Your task to perform on an android device: Open sound settings Image 0: 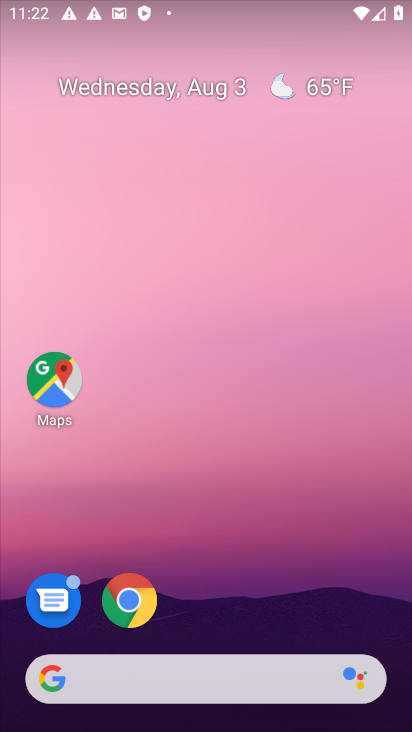
Step 0: drag from (221, 638) to (196, 0)
Your task to perform on an android device: Open sound settings Image 1: 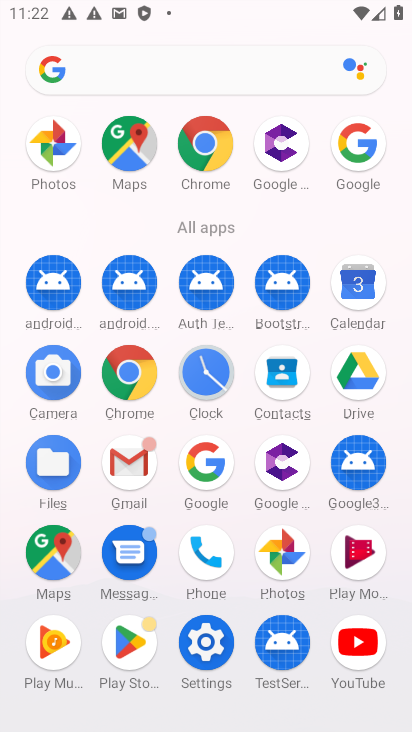
Step 1: click (224, 656)
Your task to perform on an android device: Open sound settings Image 2: 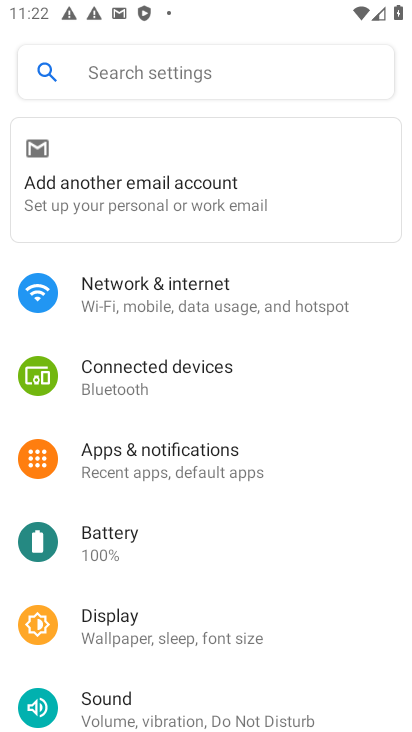
Step 2: click (68, 691)
Your task to perform on an android device: Open sound settings Image 3: 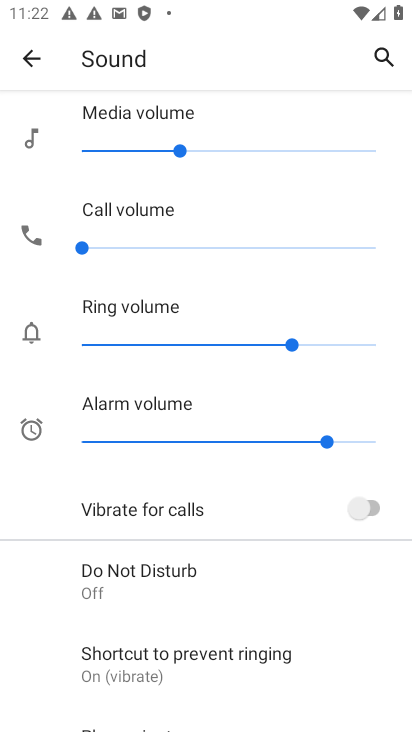
Step 3: task complete